Your task to perform on an android device: Open calendar and show me the fourth week of next month Image 0: 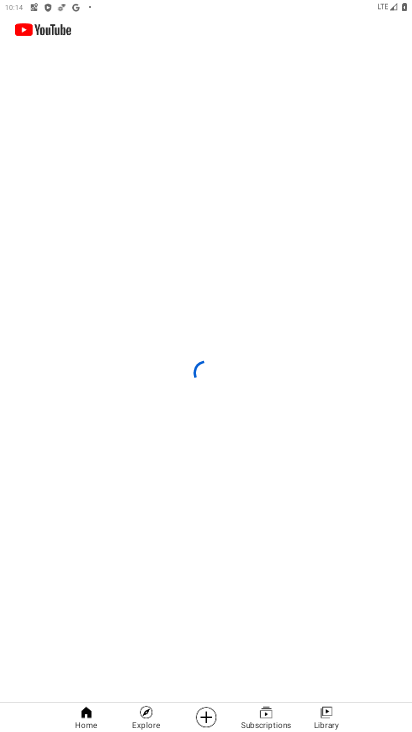
Step 0: click (223, 176)
Your task to perform on an android device: Open calendar and show me the fourth week of next month Image 1: 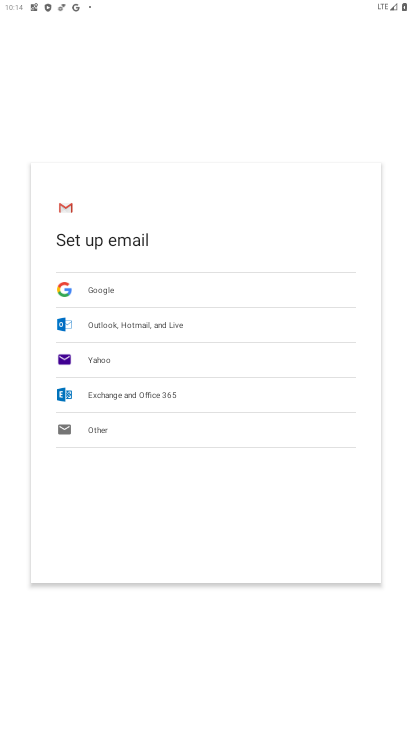
Step 1: press home button
Your task to perform on an android device: Open calendar and show me the fourth week of next month Image 2: 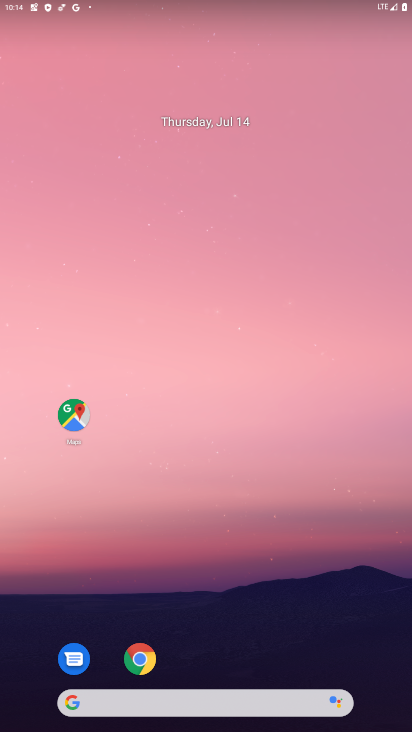
Step 2: drag from (259, 614) to (250, 179)
Your task to perform on an android device: Open calendar and show me the fourth week of next month Image 3: 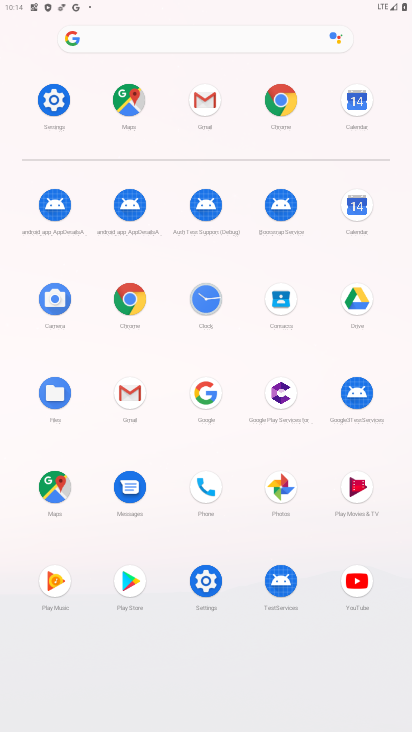
Step 3: click (355, 213)
Your task to perform on an android device: Open calendar and show me the fourth week of next month Image 4: 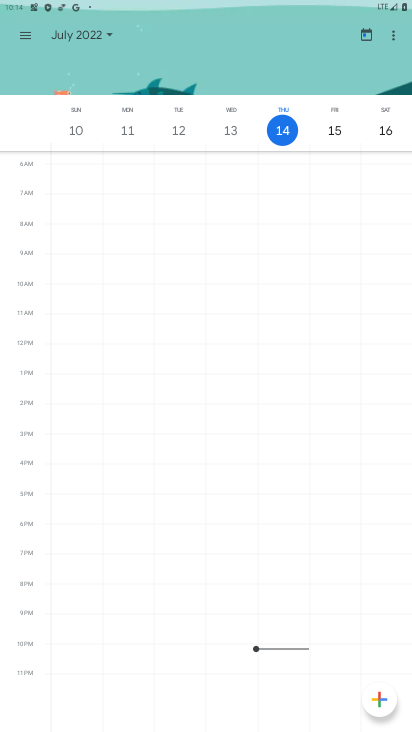
Step 4: click (82, 37)
Your task to perform on an android device: Open calendar and show me the fourth week of next month Image 5: 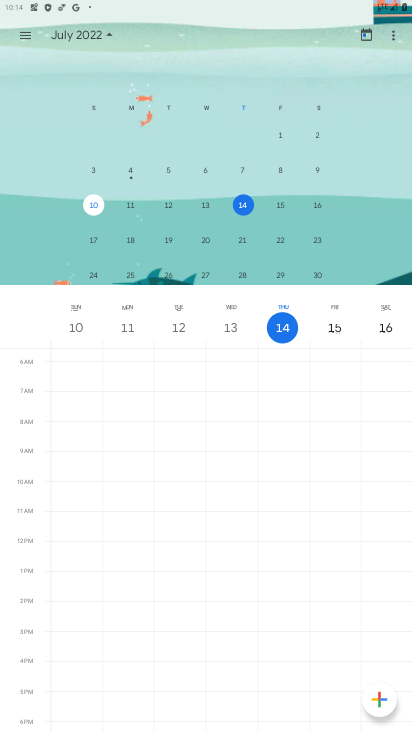
Step 5: drag from (320, 226) to (55, 218)
Your task to perform on an android device: Open calendar and show me the fourth week of next month Image 6: 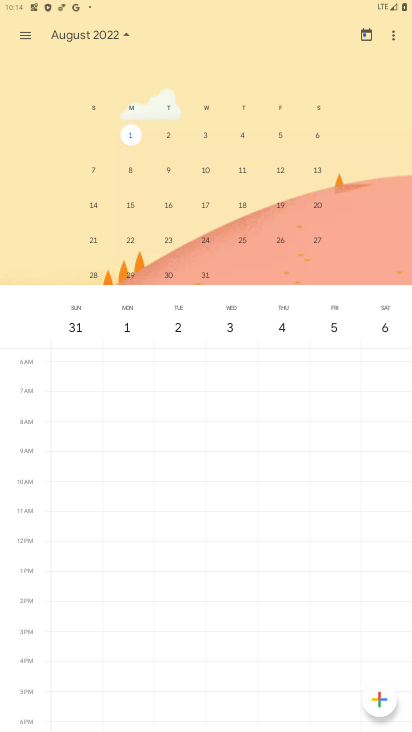
Step 6: click (243, 235)
Your task to perform on an android device: Open calendar and show me the fourth week of next month Image 7: 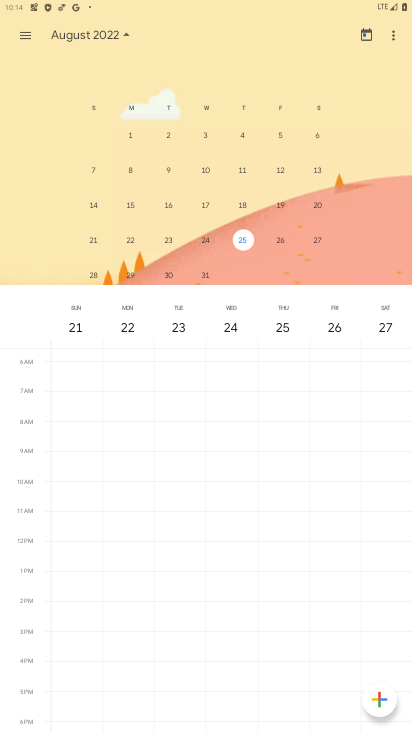
Step 7: task complete